Your task to perform on an android device: empty trash in the gmail app Image 0: 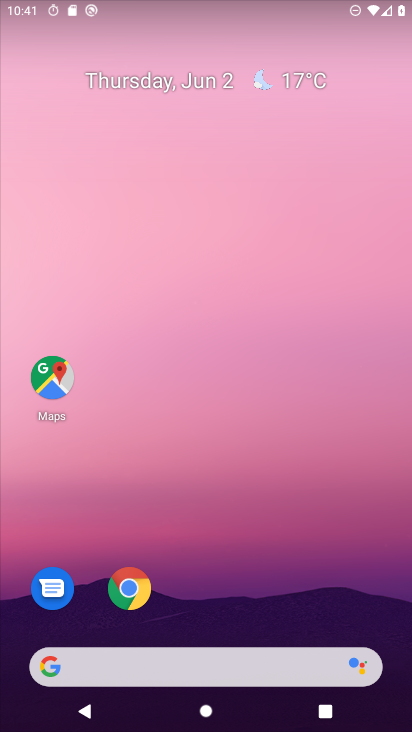
Step 0: click (205, 316)
Your task to perform on an android device: empty trash in the gmail app Image 1: 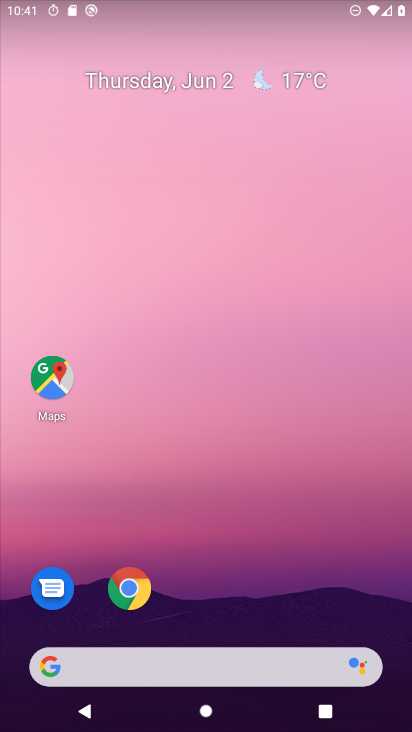
Step 1: drag from (181, 561) to (225, 263)
Your task to perform on an android device: empty trash in the gmail app Image 2: 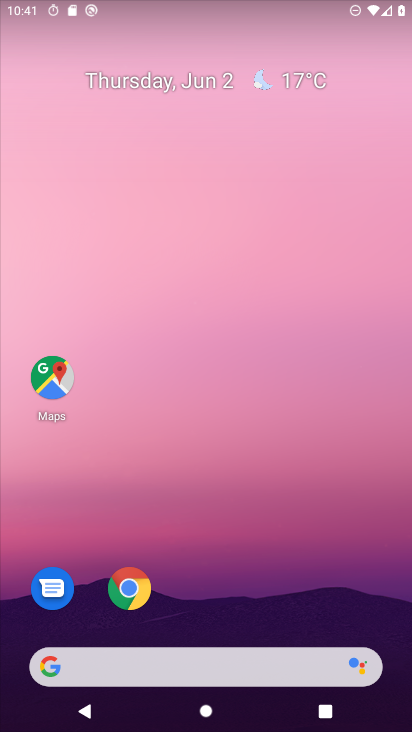
Step 2: drag from (242, 648) to (285, 103)
Your task to perform on an android device: empty trash in the gmail app Image 3: 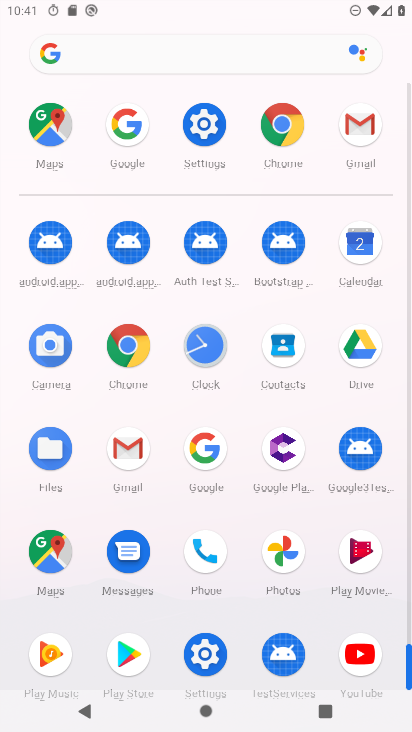
Step 3: click (370, 158)
Your task to perform on an android device: empty trash in the gmail app Image 4: 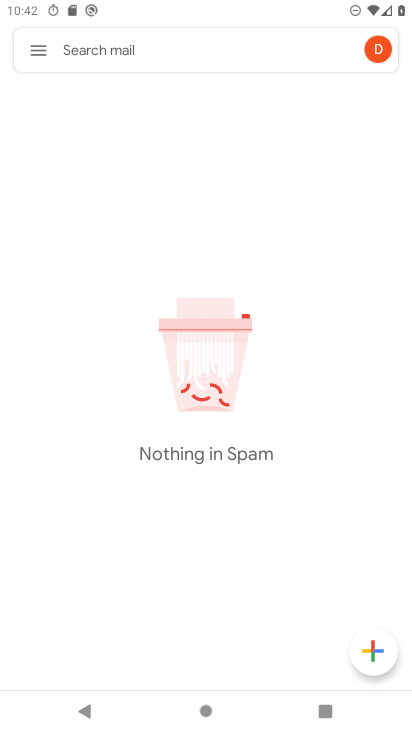
Step 4: click (52, 46)
Your task to perform on an android device: empty trash in the gmail app Image 5: 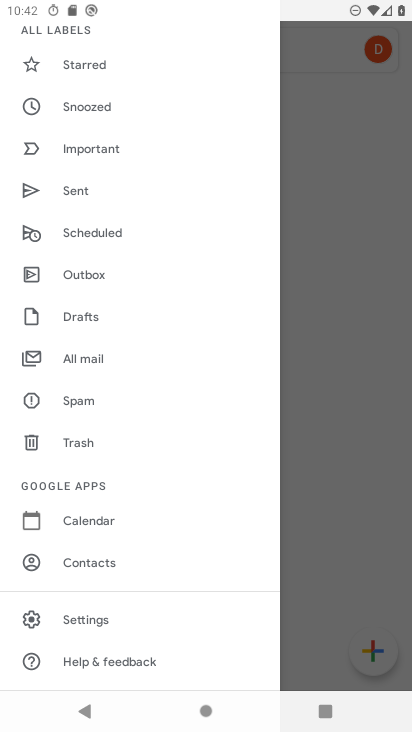
Step 5: click (86, 434)
Your task to perform on an android device: empty trash in the gmail app Image 6: 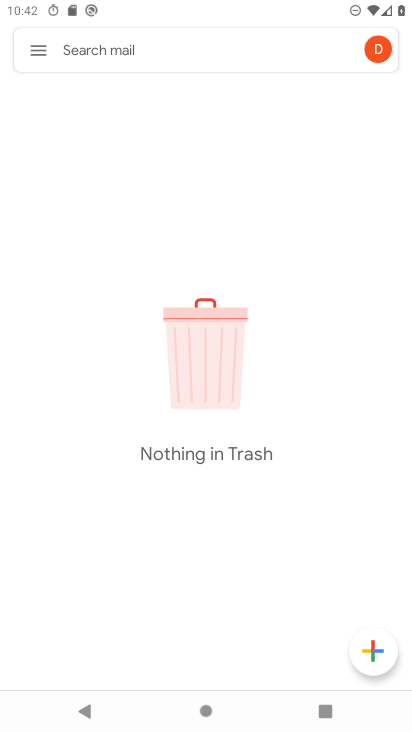
Step 6: task complete